Your task to perform on an android device: change keyboard looks Image 0: 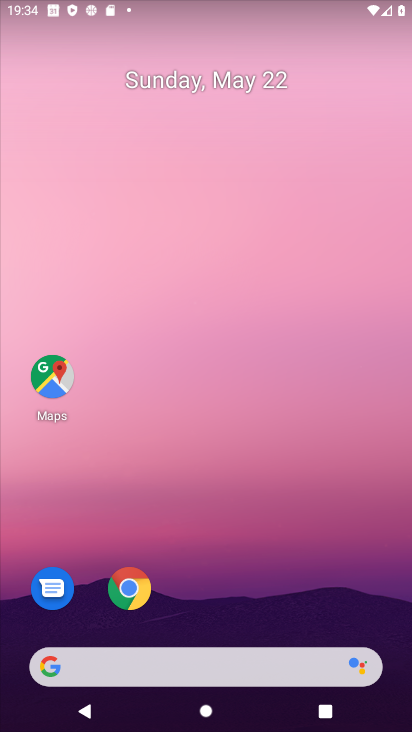
Step 0: drag from (287, 535) to (231, 74)
Your task to perform on an android device: change keyboard looks Image 1: 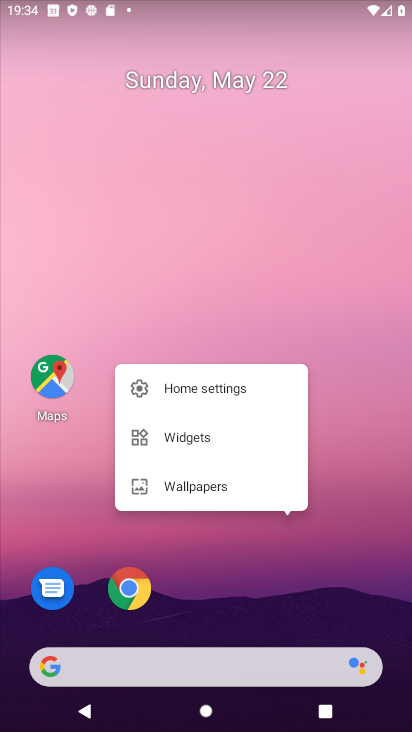
Step 1: click (185, 244)
Your task to perform on an android device: change keyboard looks Image 2: 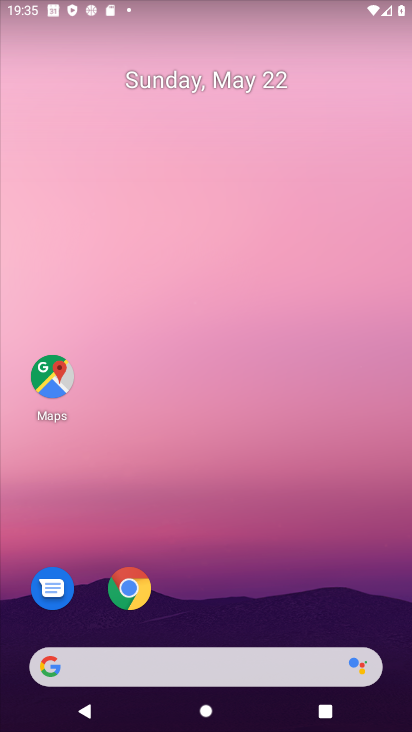
Step 2: drag from (227, 565) to (212, 28)
Your task to perform on an android device: change keyboard looks Image 3: 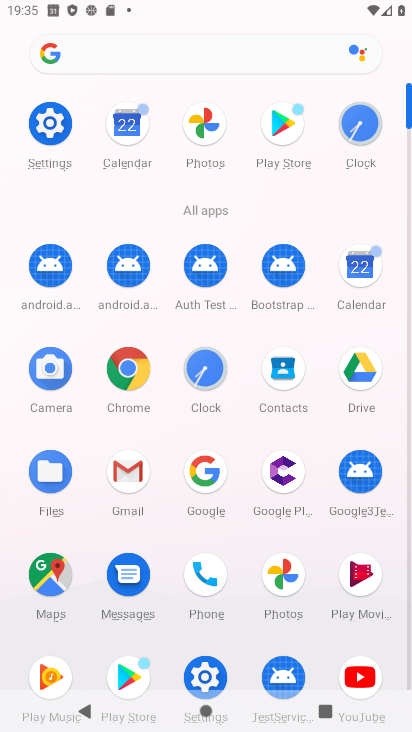
Step 3: click (57, 128)
Your task to perform on an android device: change keyboard looks Image 4: 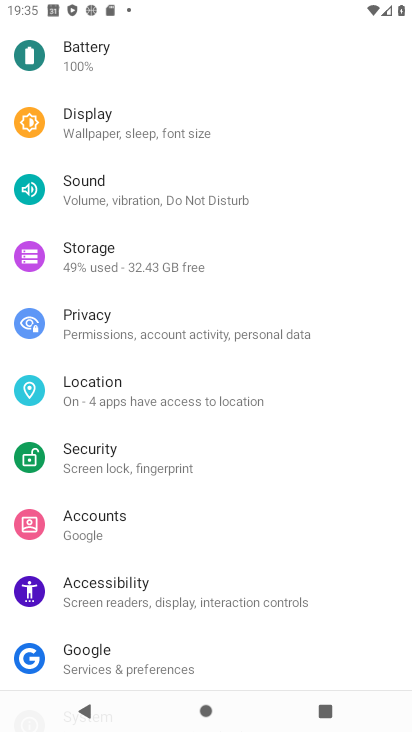
Step 4: drag from (228, 571) to (196, 1)
Your task to perform on an android device: change keyboard looks Image 5: 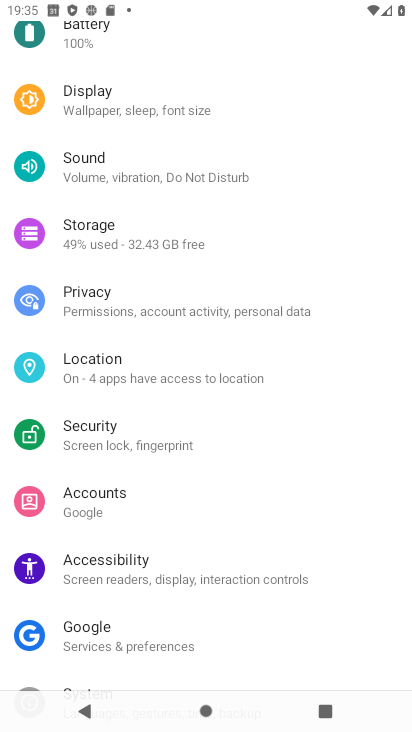
Step 5: drag from (201, 525) to (218, 0)
Your task to perform on an android device: change keyboard looks Image 6: 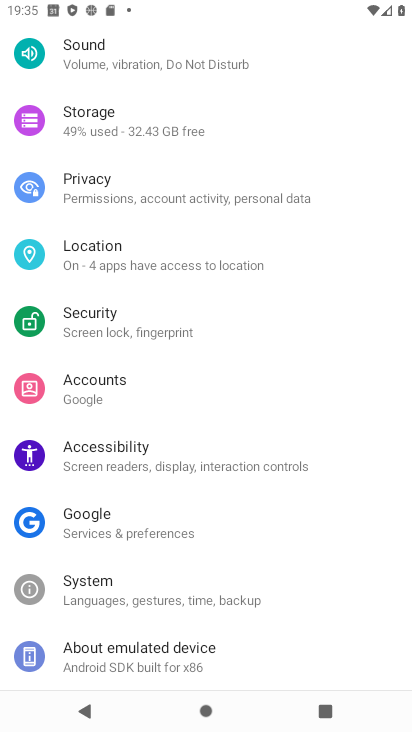
Step 6: click (80, 575)
Your task to perform on an android device: change keyboard looks Image 7: 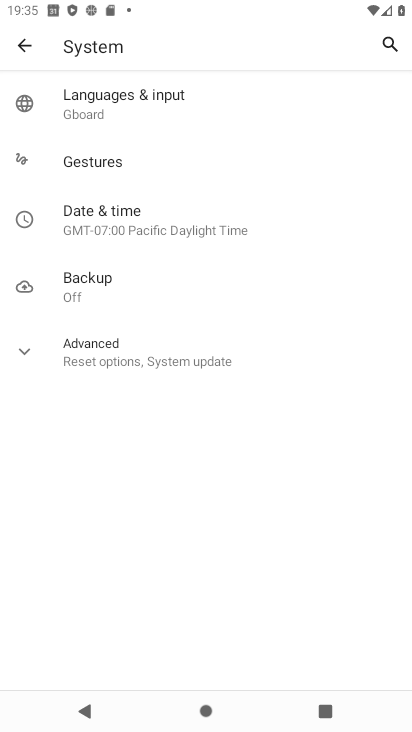
Step 7: click (89, 93)
Your task to perform on an android device: change keyboard looks Image 8: 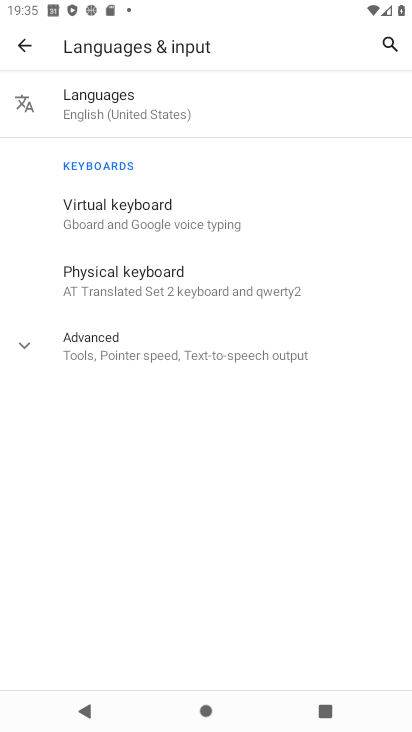
Step 8: click (123, 205)
Your task to perform on an android device: change keyboard looks Image 9: 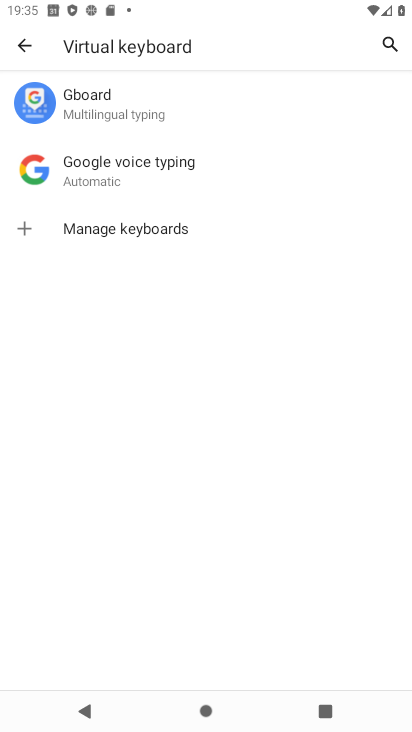
Step 9: click (81, 99)
Your task to perform on an android device: change keyboard looks Image 10: 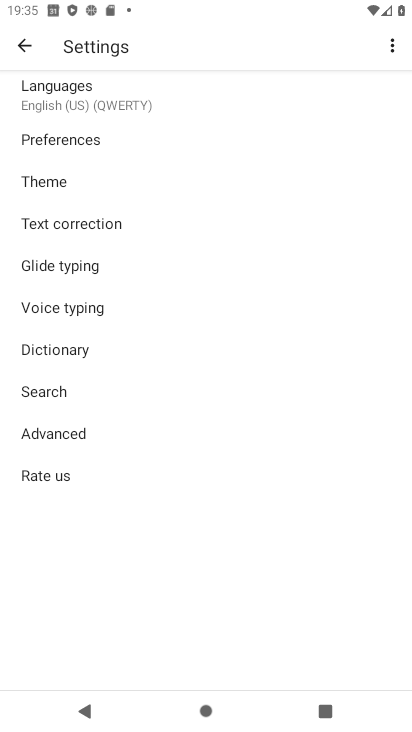
Step 10: click (45, 180)
Your task to perform on an android device: change keyboard looks Image 11: 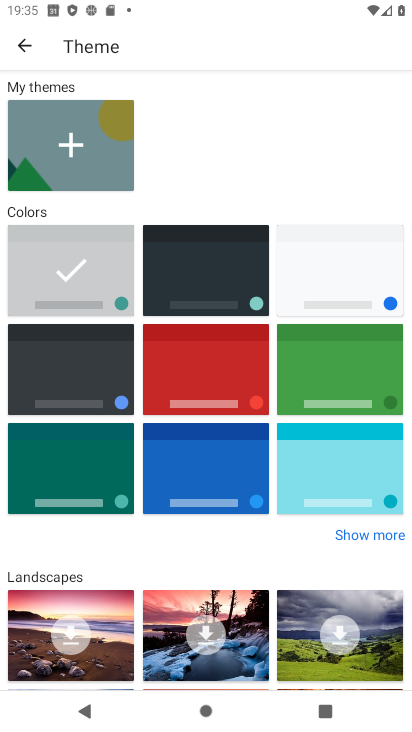
Step 11: click (233, 378)
Your task to perform on an android device: change keyboard looks Image 12: 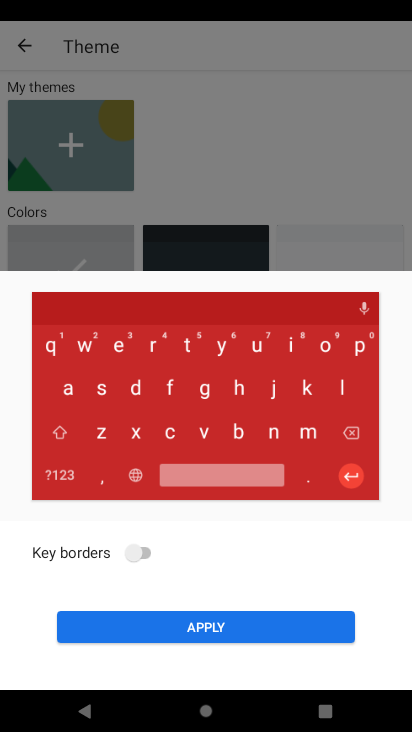
Step 12: click (217, 617)
Your task to perform on an android device: change keyboard looks Image 13: 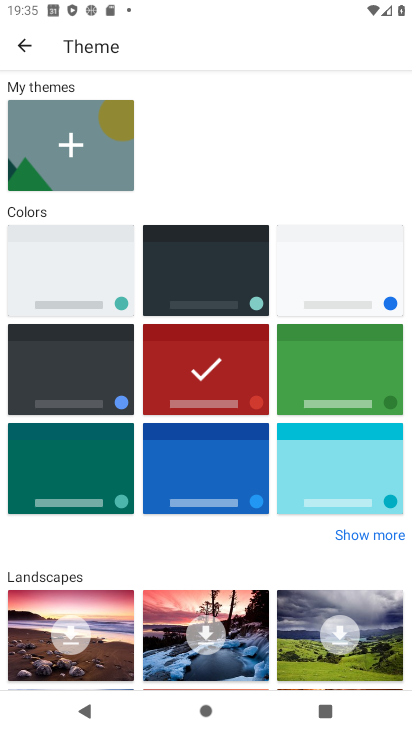
Step 13: task complete